Your task to perform on an android device: Open eBay Image 0: 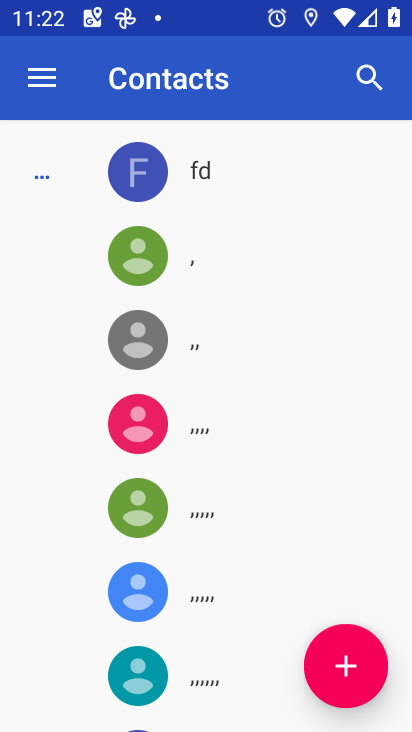
Step 0: press home button
Your task to perform on an android device: Open eBay Image 1: 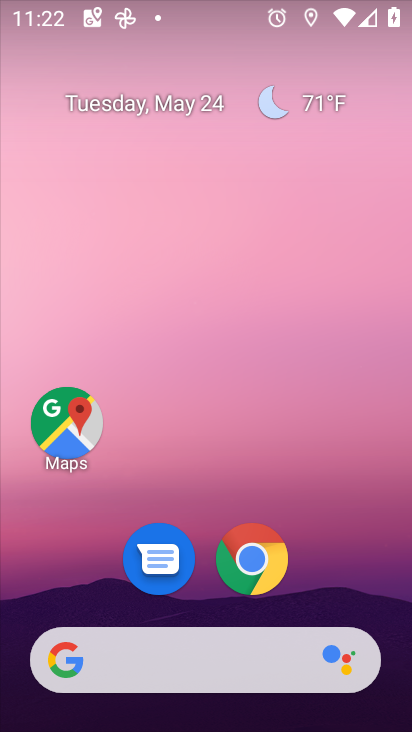
Step 1: drag from (386, 606) to (327, 49)
Your task to perform on an android device: Open eBay Image 2: 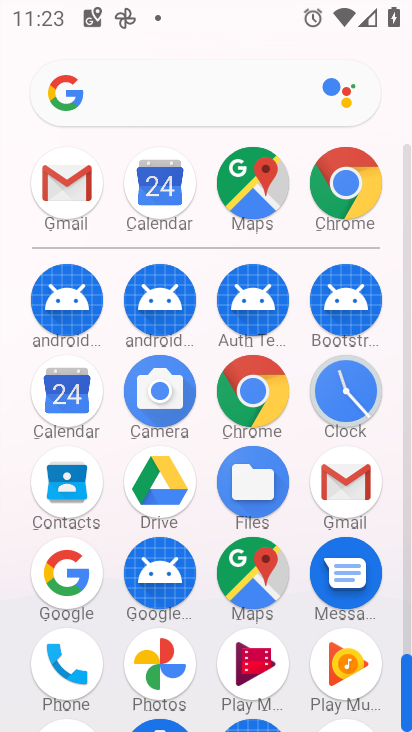
Step 2: click (56, 570)
Your task to perform on an android device: Open eBay Image 3: 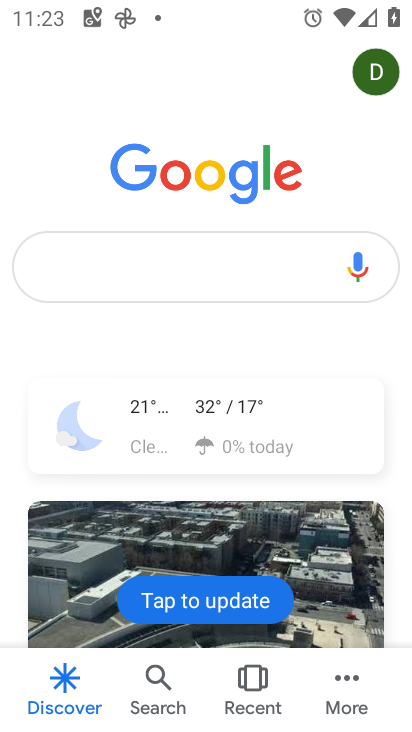
Step 3: click (142, 283)
Your task to perform on an android device: Open eBay Image 4: 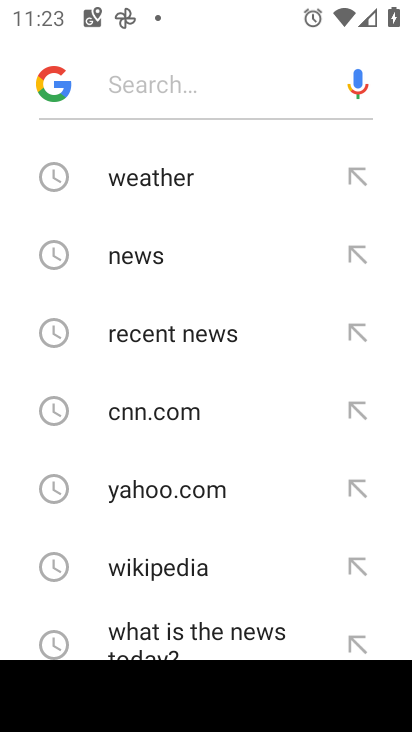
Step 4: drag from (153, 578) to (277, 147)
Your task to perform on an android device: Open eBay Image 5: 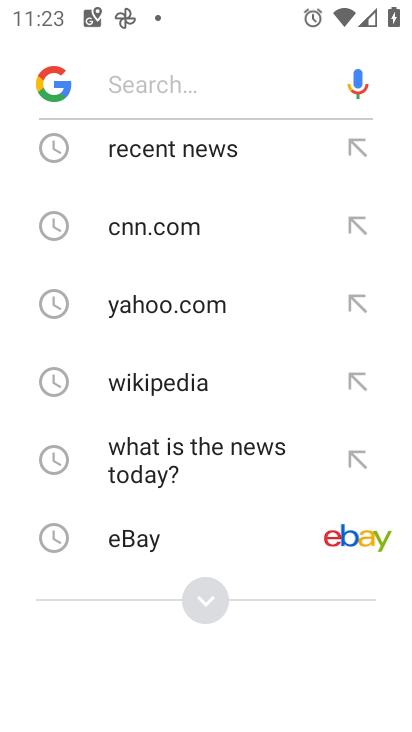
Step 5: click (198, 546)
Your task to perform on an android device: Open eBay Image 6: 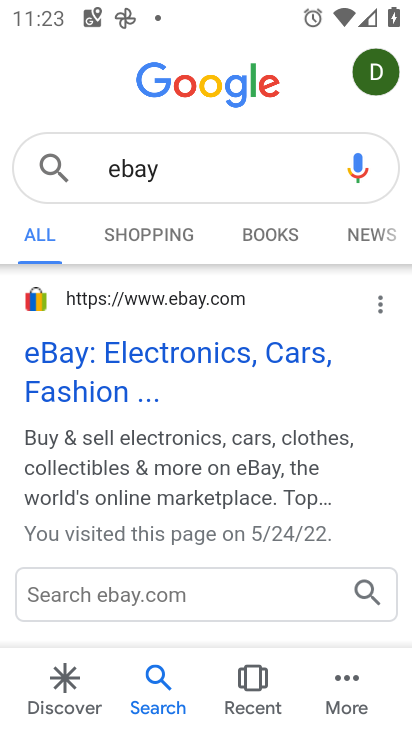
Step 6: task complete